Your task to perform on an android device: add a contact in the contacts app Image 0: 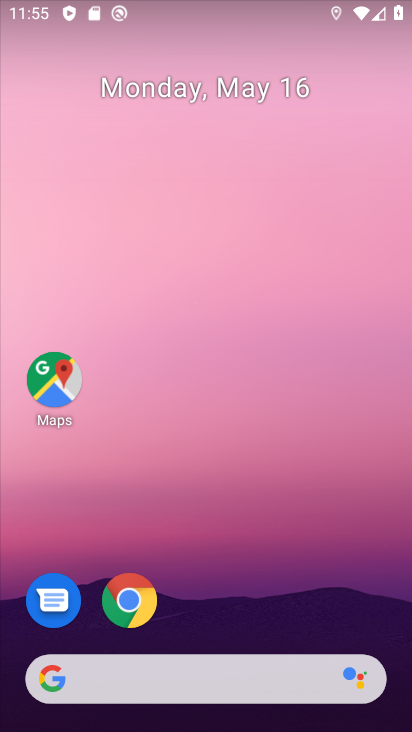
Step 0: drag from (238, 627) to (261, 116)
Your task to perform on an android device: add a contact in the contacts app Image 1: 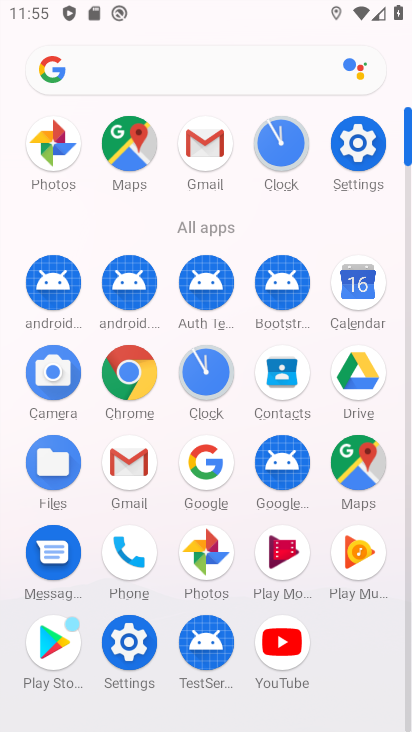
Step 1: click (282, 385)
Your task to perform on an android device: add a contact in the contacts app Image 2: 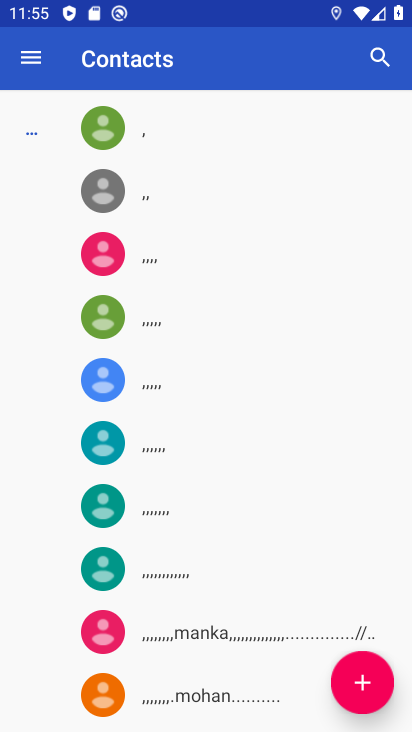
Step 2: click (362, 688)
Your task to perform on an android device: add a contact in the contacts app Image 3: 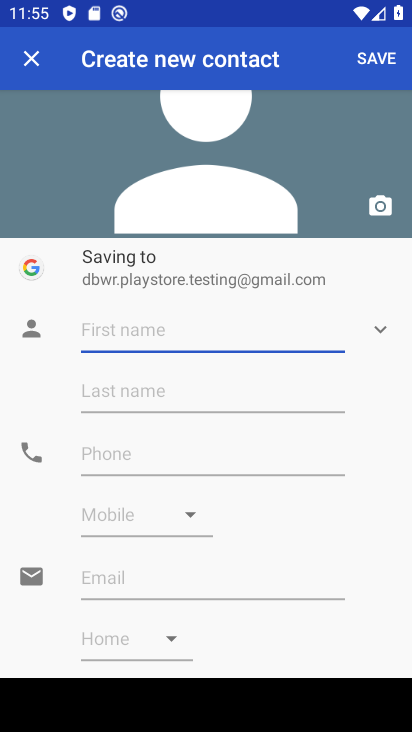
Step 3: click (232, 331)
Your task to perform on an android device: add a contact in the contacts app Image 4: 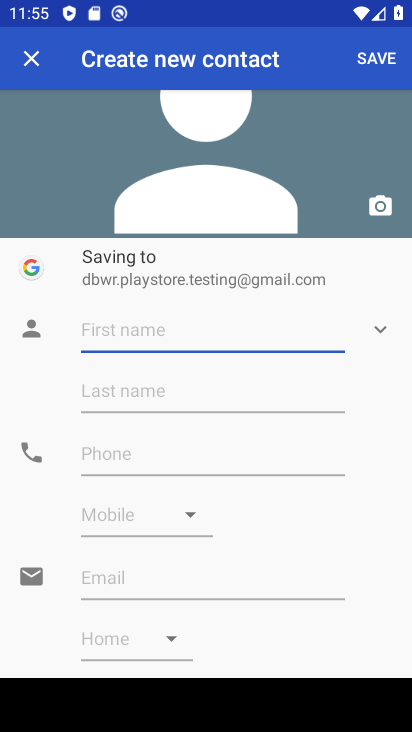
Step 4: type "bhghkhkh"
Your task to perform on an android device: add a contact in the contacts app Image 5: 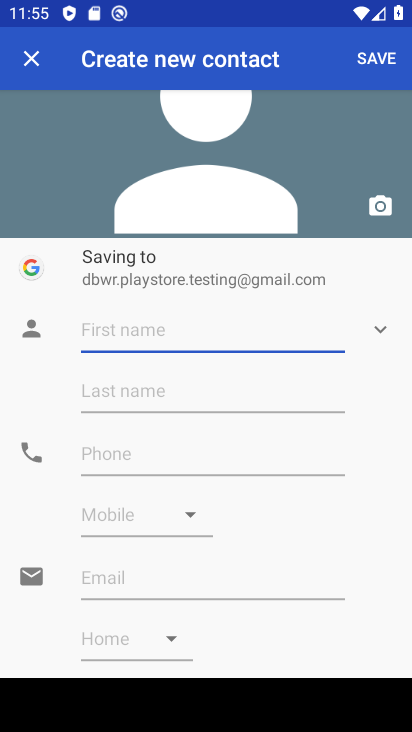
Step 5: click (245, 457)
Your task to perform on an android device: add a contact in the contacts app Image 6: 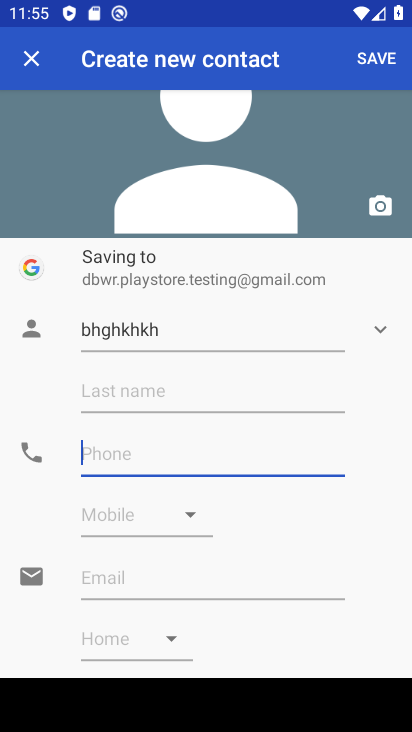
Step 6: type "76997878789"
Your task to perform on an android device: add a contact in the contacts app Image 7: 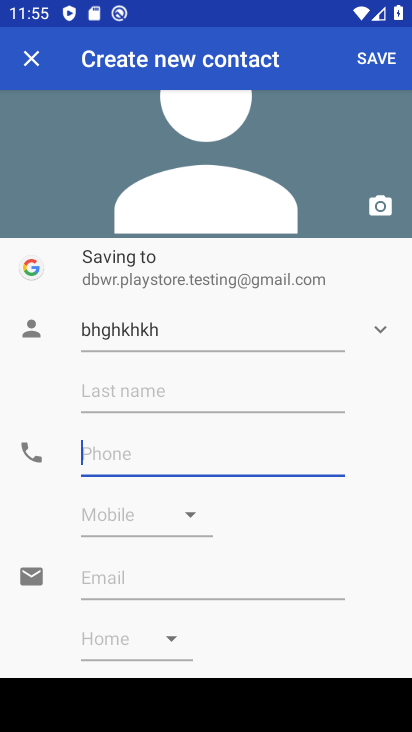
Step 7: click (400, 558)
Your task to perform on an android device: add a contact in the contacts app Image 8: 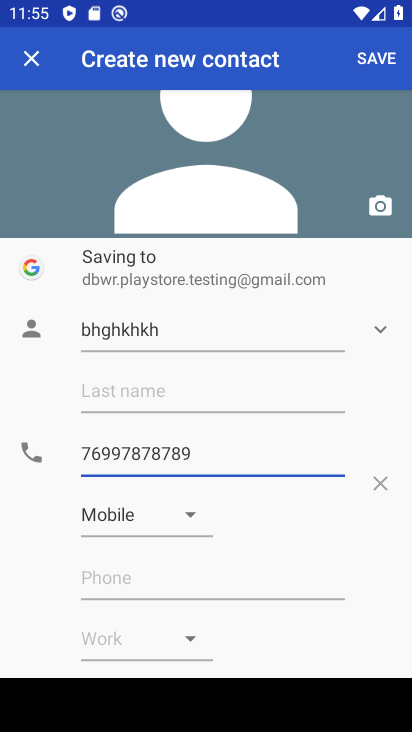
Step 8: click (367, 62)
Your task to perform on an android device: add a contact in the contacts app Image 9: 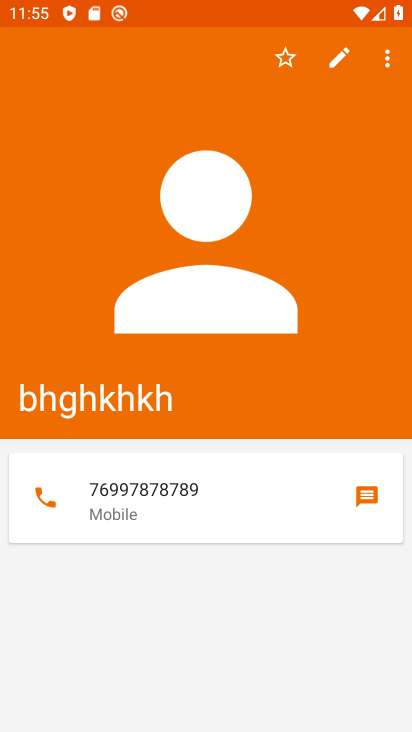
Step 9: task complete